Your task to perform on an android device: turn off notifications in google photos Image 0: 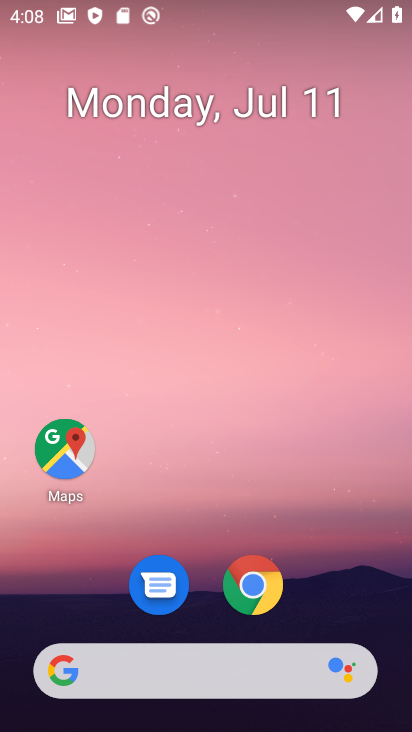
Step 0: drag from (196, 504) to (265, 31)
Your task to perform on an android device: turn off notifications in google photos Image 1: 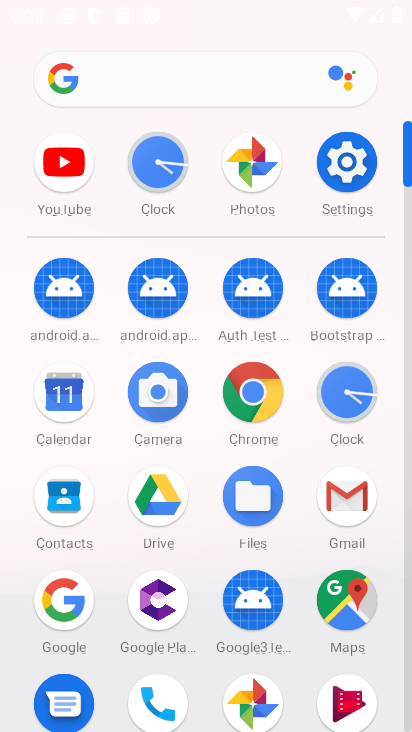
Step 1: click (253, 157)
Your task to perform on an android device: turn off notifications in google photos Image 2: 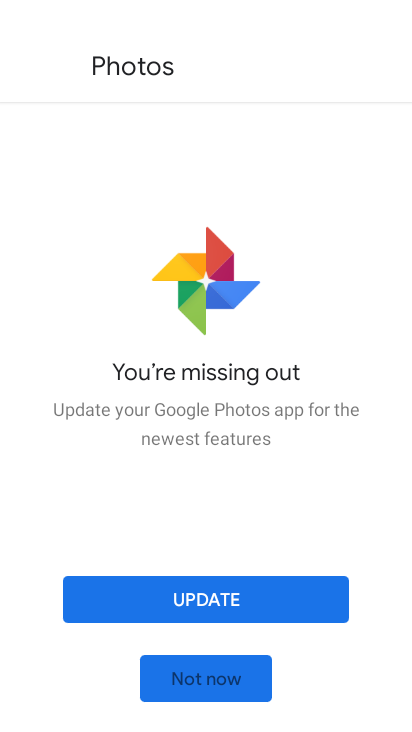
Step 2: click (186, 673)
Your task to perform on an android device: turn off notifications in google photos Image 3: 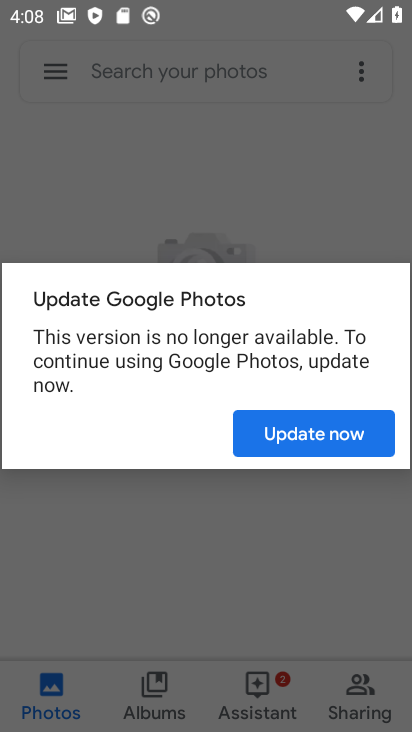
Step 3: click (321, 429)
Your task to perform on an android device: turn off notifications in google photos Image 4: 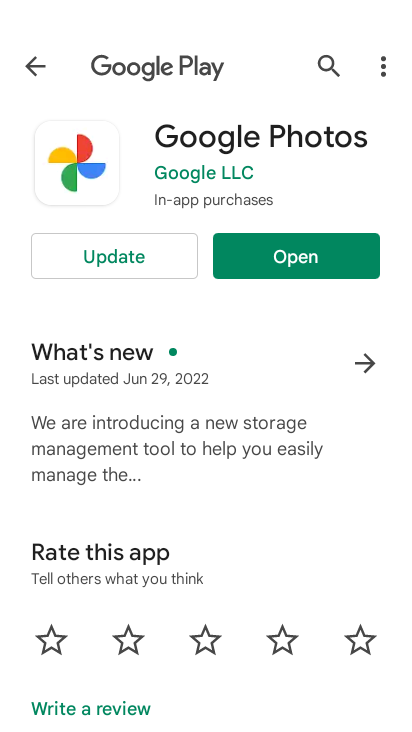
Step 4: click (244, 260)
Your task to perform on an android device: turn off notifications in google photos Image 5: 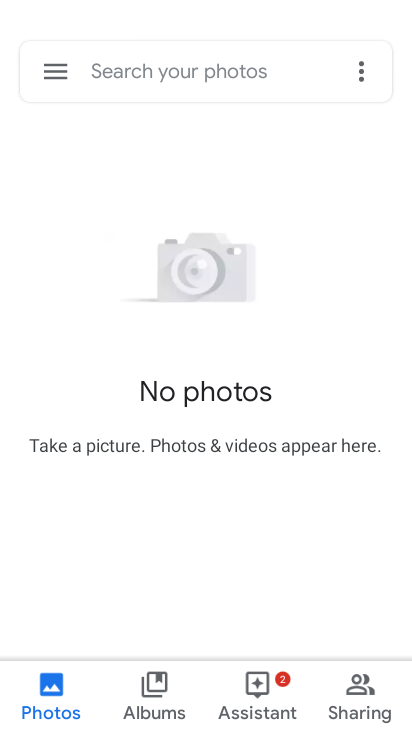
Step 5: click (62, 59)
Your task to perform on an android device: turn off notifications in google photos Image 6: 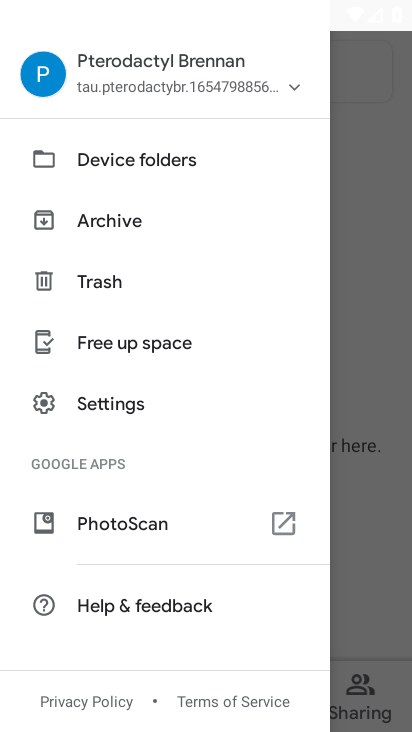
Step 6: click (109, 396)
Your task to perform on an android device: turn off notifications in google photos Image 7: 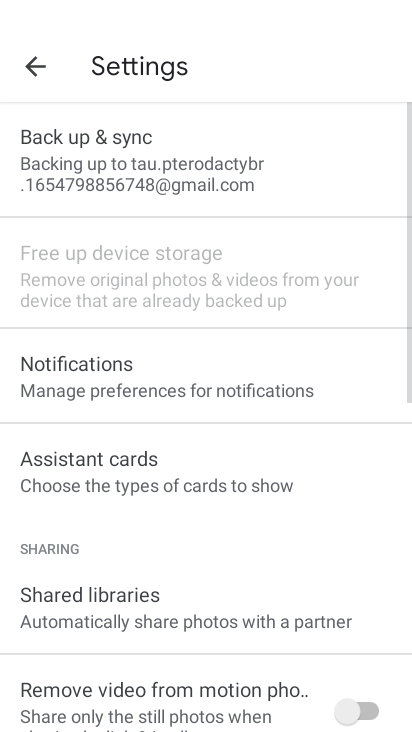
Step 7: click (109, 394)
Your task to perform on an android device: turn off notifications in google photos Image 8: 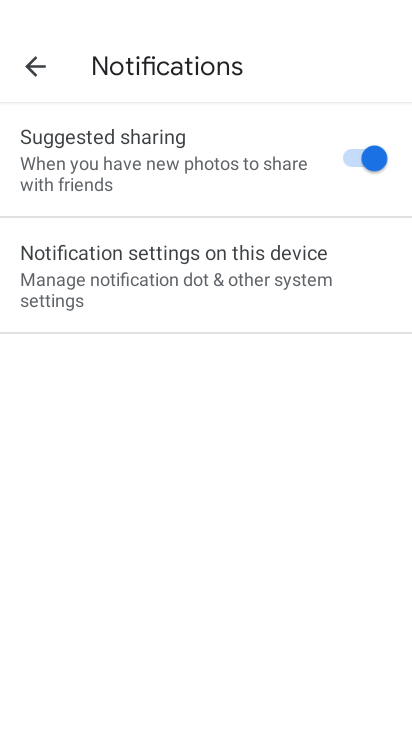
Step 8: click (350, 147)
Your task to perform on an android device: turn off notifications in google photos Image 9: 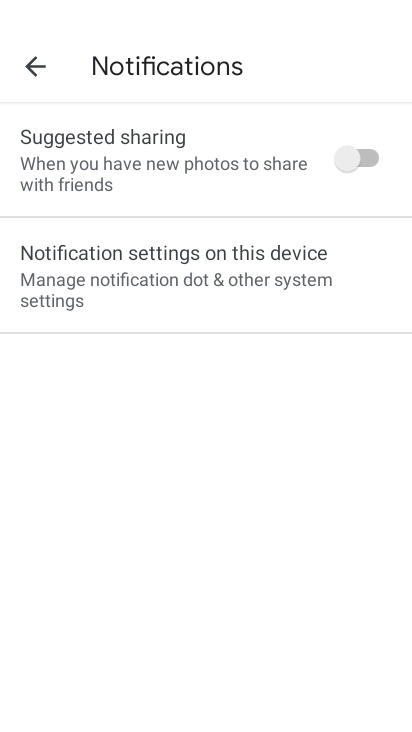
Step 9: task complete